Your task to perform on an android device: What is the news today? Image 0: 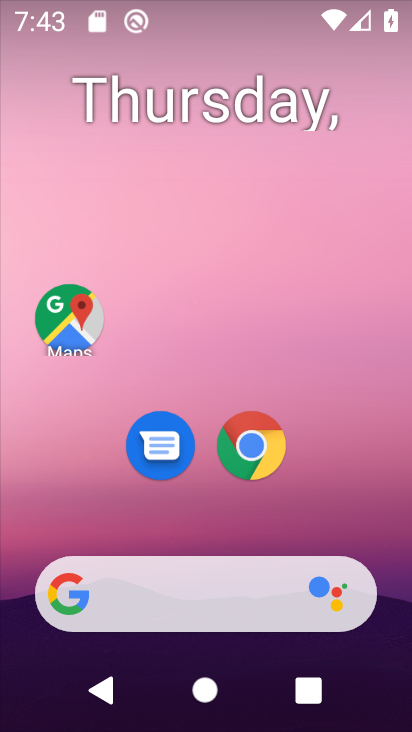
Step 0: drag from (6, 229) to (393, 406)
Your task to perform on an android device: What is the news today? Image 1: 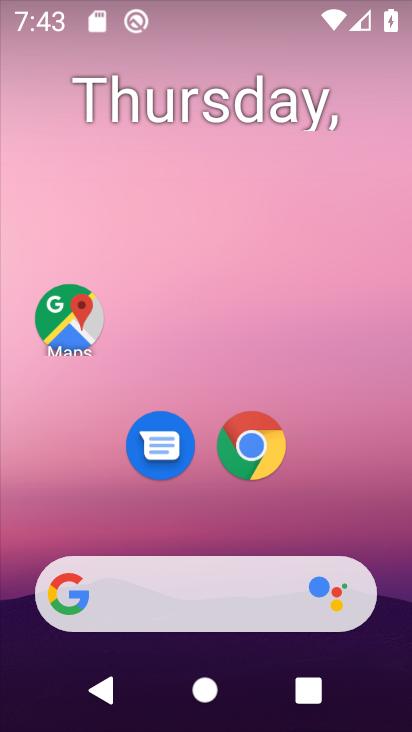
Step 1: drag from (17, 254) to (392, 411)
Your task to perform on an android device: What is the news today? Image 2: 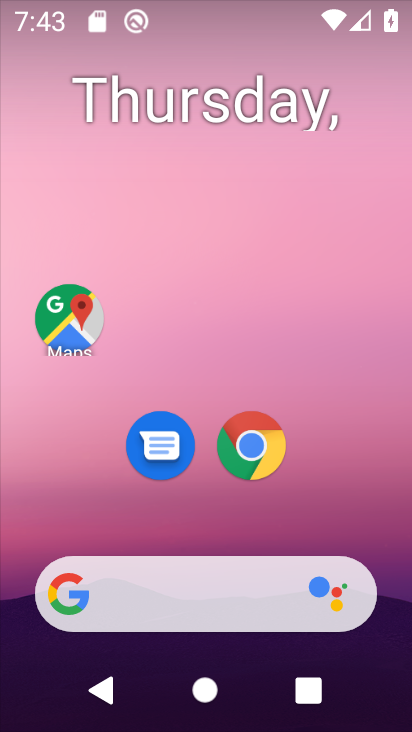
Step 2: drag from (6, 218) to (266, 463)
Your task to perform on an android device: What is the news today? Image 3: 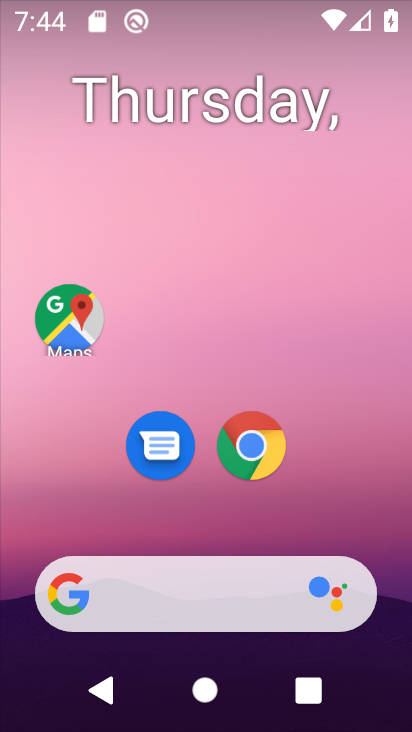
Step 3: drag from (5, 263) to (382, 431)
Your task to perform on an android device: What is the news today? Image 4: 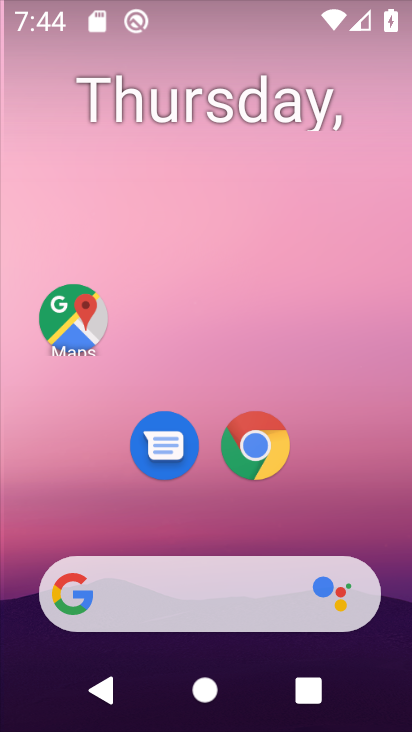
Step 4: drag from (34, 252) to (394, 529)
Your task to perform on an android device: What is the news today? Image 5: 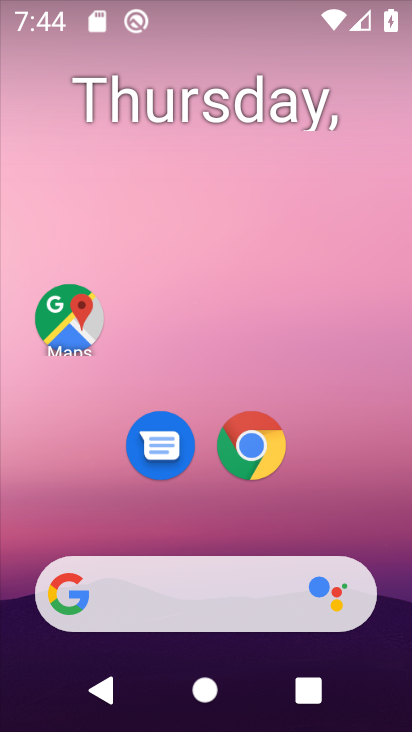
Step 5: drag from (4, 253) to (404, 529)
Your task to perform on an android device: What is the news today? Image 6: 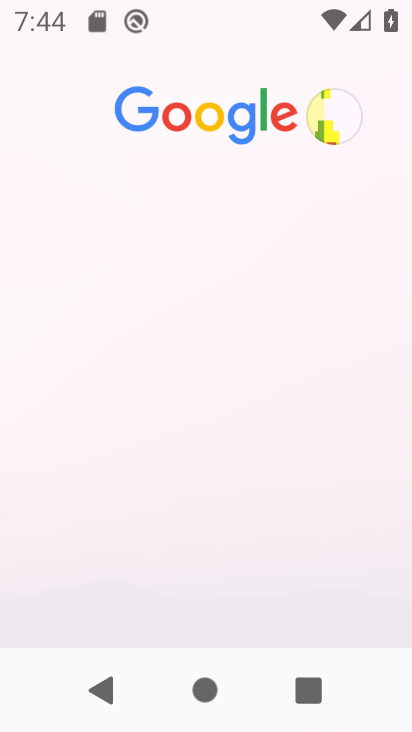
Step 6: drag from (10, 224) to (396, 490)
Your task to perform on an android device: What is the news today? Image 7: 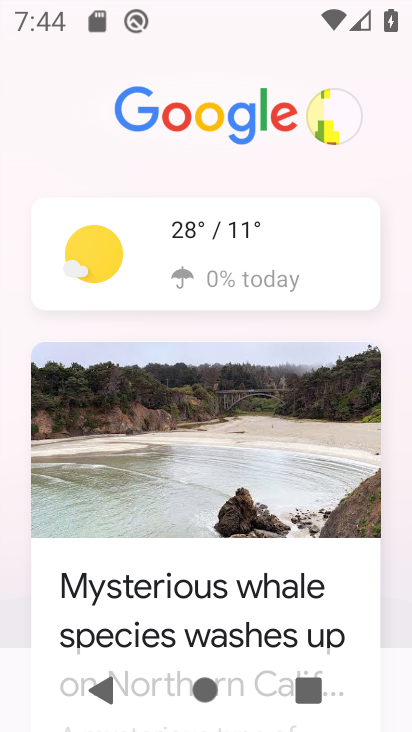
Step 7: drag from (232, 547) to (179, 235)
Your task to perform on an android device: What is the news today? Image 8: 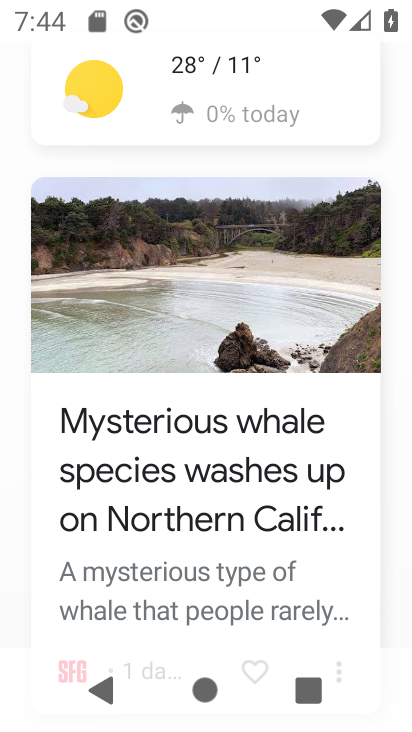
Step 8: click (181, 162)
Your task to perform on an android device: What is the news today? Image 9: 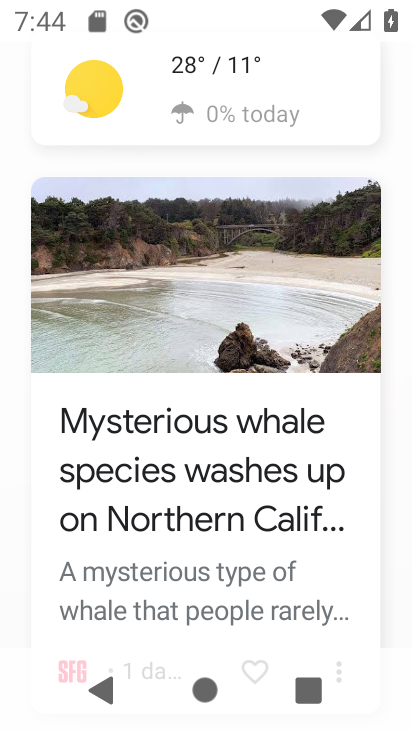
Step 9: click (174, 279)
Your task to perform on an android device: What is the news today? Image 10: 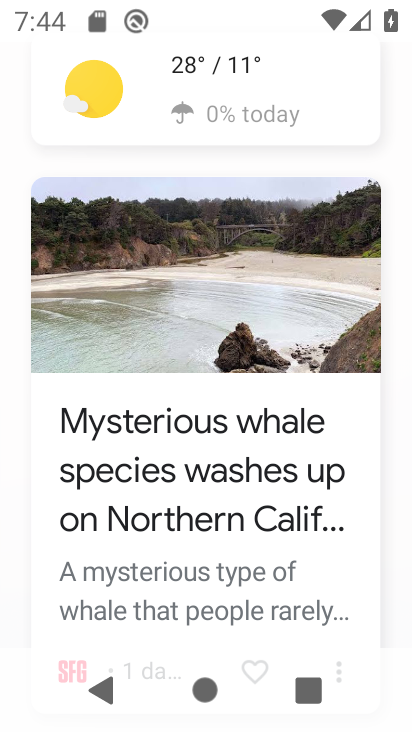
Step 10: drag from (209, 429) to (180, 56)
Your task to perform on an android device: What is the news today? Image 11: 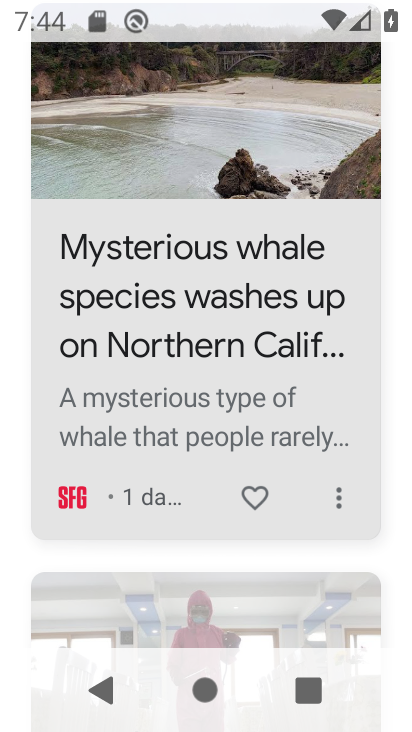
Step 11: drag from (206, 337) to (189, 221)
Your task to perform on an android device: What is the news today? Image 12: 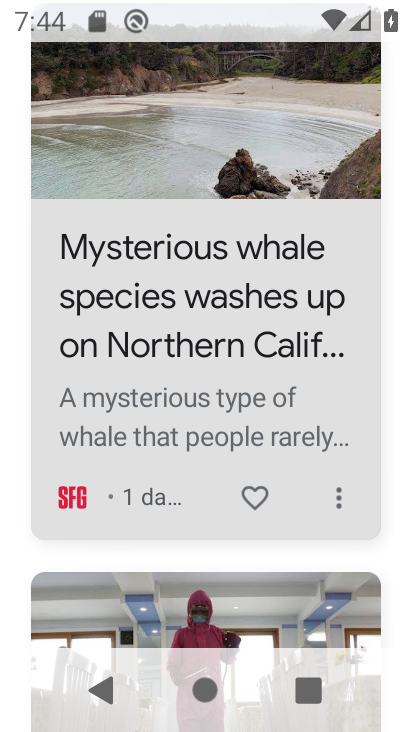
Step 12: drag from (229, 353) to (195, 122)
Your task to perform on an android device: What is the news today? Image 13: 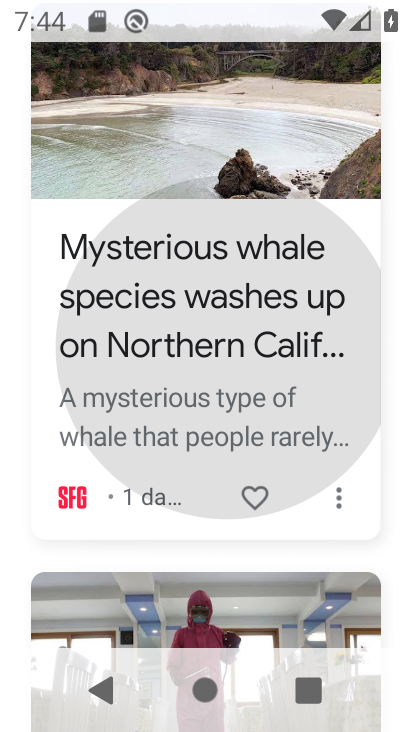
Step 13: drag from (213, 421) to (152, 65)
Your task to perform on an android device: What is the news today? Image 14: 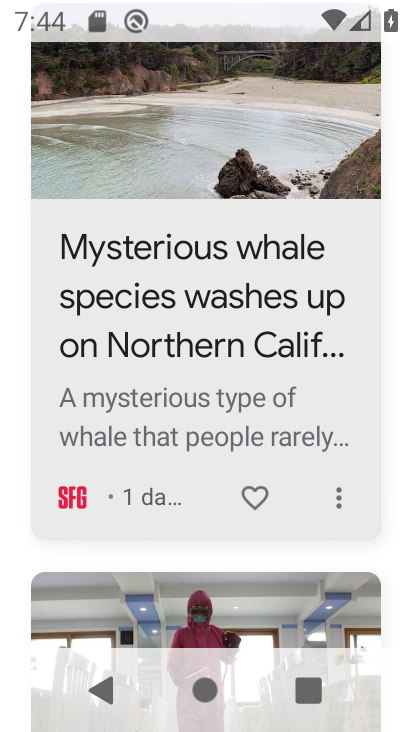
Step 14: drag from (164, 385) to (207, 101)
Your task to perform on an android device: What is the news today? Image 15: 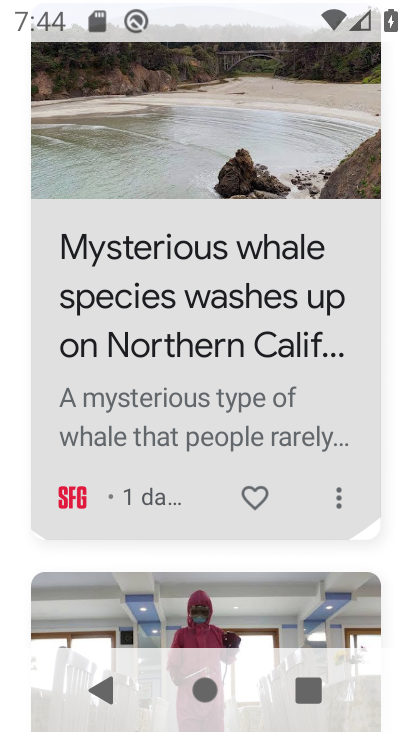
Step 15: drag from (220, 419) to (190, 61)
Your task to perform on an android device: What is the news today? Image 16: 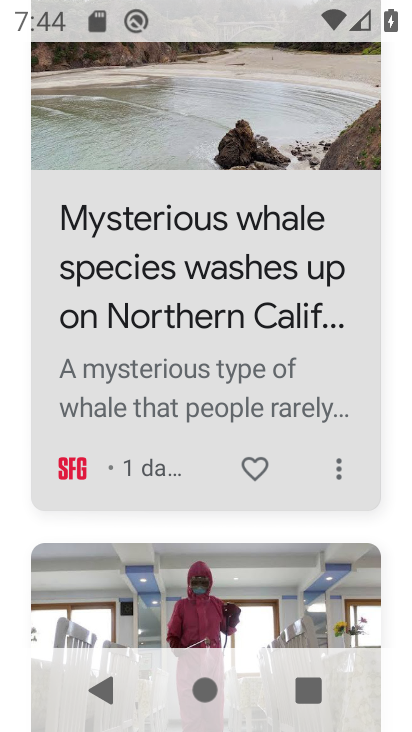
Step 16: drag from (230, 366) to (158, 72)
Your task to perform on an android device: What is the news today? Image 17: 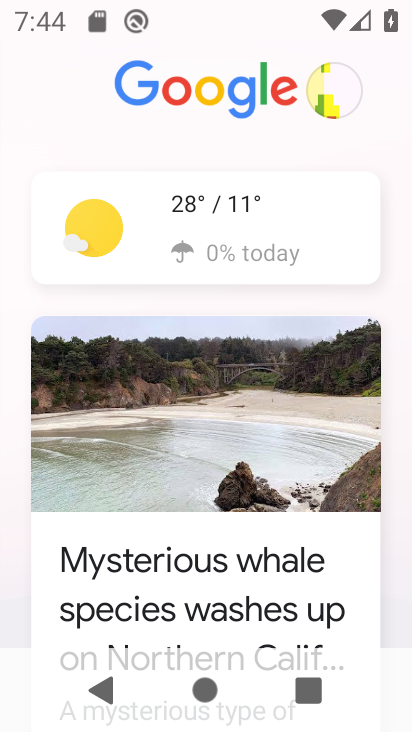
Step 17: drag from (178, 454) to (167, 30)
Your task to perform on an android device: What is the news today? Image 18: 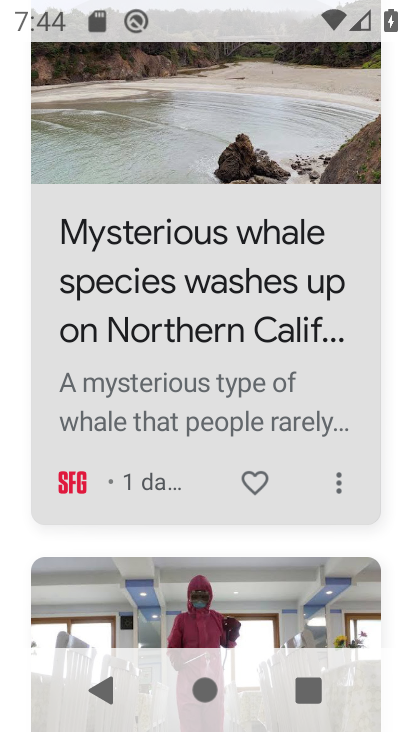
Step 18: drag from (194, 472) to (141, 71)
Your task to perform on an android device: What is the news today? Image 19: 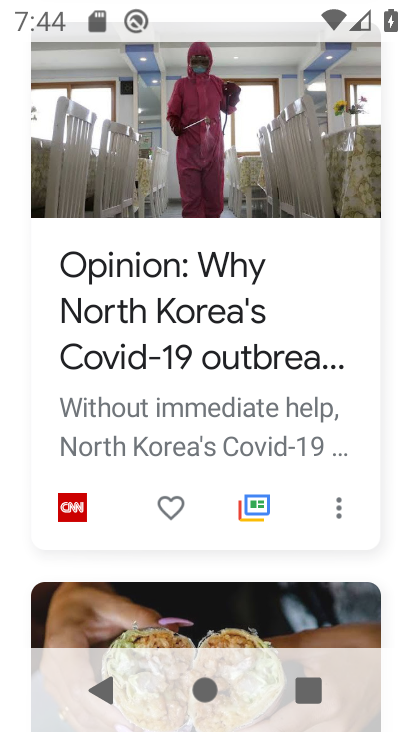
Step 19: drag from (186, 314) to (186, 137)
Your task to perform on an android device: What is the news today? Image 20: 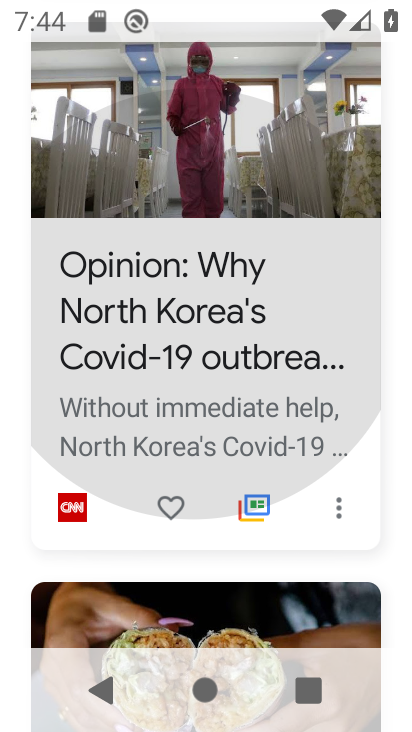
Step 20: click (222, 110)
Your task to perform on an android device: What is the news today? Image 21: 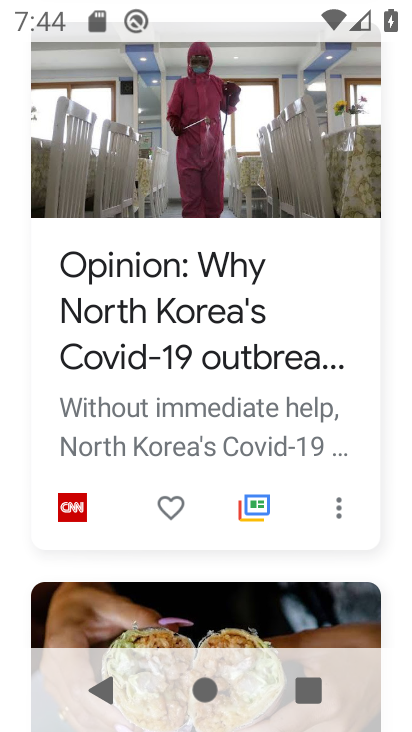
Step 21: task complete